Your task to perform on an android device: open app "Nova Launcher" (install if not already installed) Image 0: 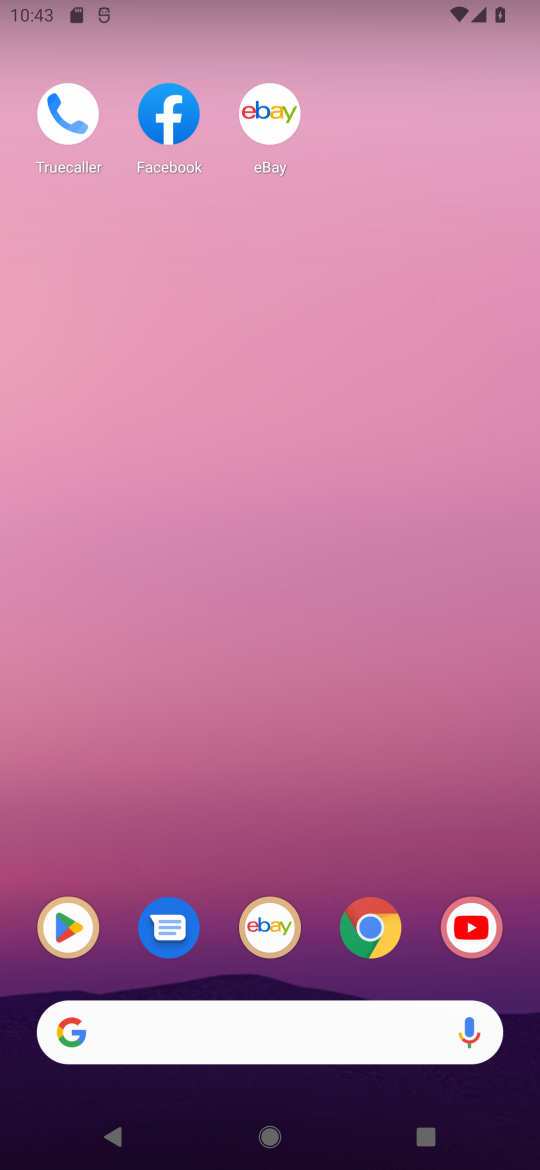
Step 0: press home button
Your task to perform on an android device: open app "Nova Launcher" (install if not already installed) Image 1: 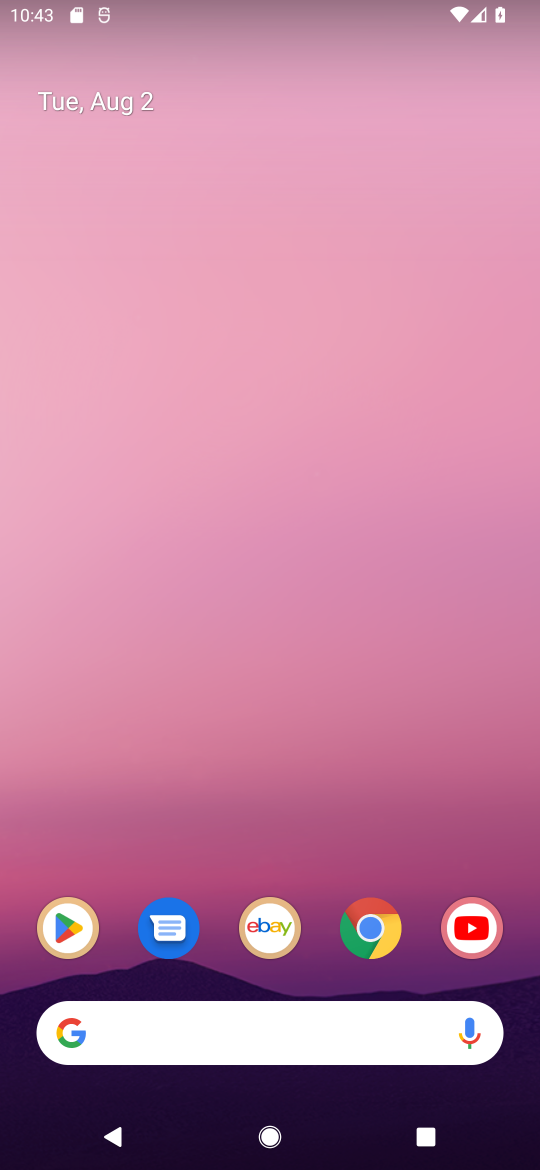
Step 1: click (52, 928)
Your task to perform on an android device: open app "Nova Launcher" (install if not already installed) Image 2: 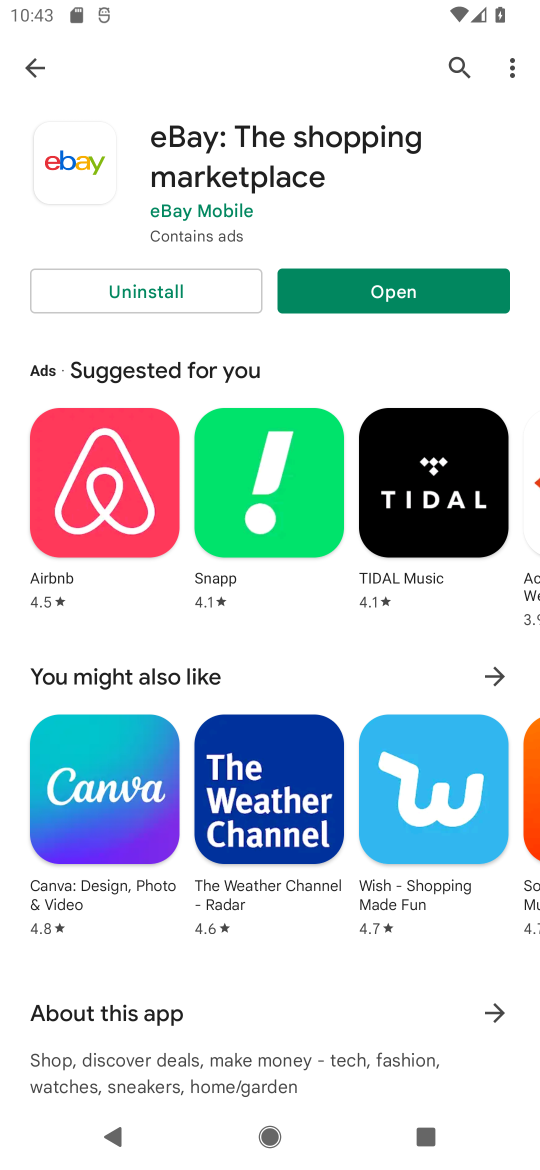
Step 2: click (456, 60)
Your task to perform on an android device: open app "Nova Launcher" (install if not already installed) Image 3: 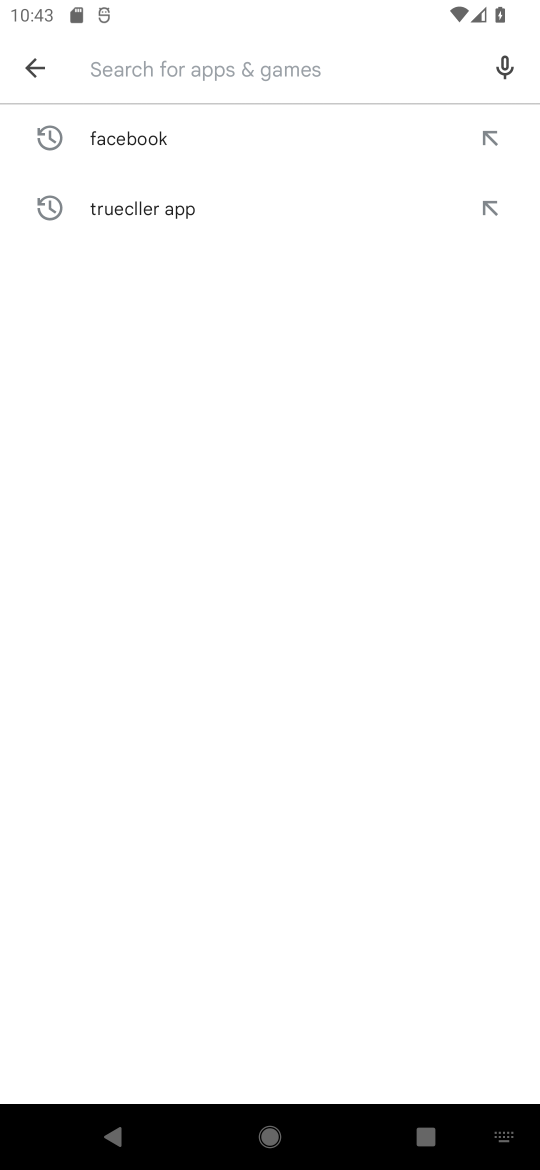
Step 3: type "nova launcher"
Your task to perform on an android device: open app "Nova Launcher" (install if not already installed) Image 4: 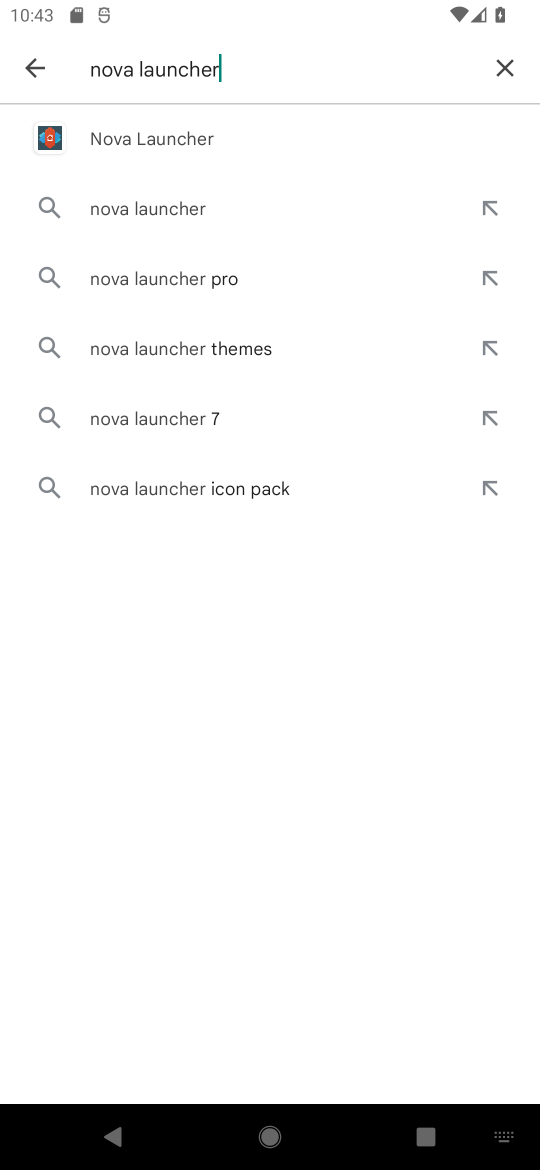
Step 4: click (233, 125)
Your task to perform on an android device: open app "Nova Launcher" (install if not already installed) Image 5: 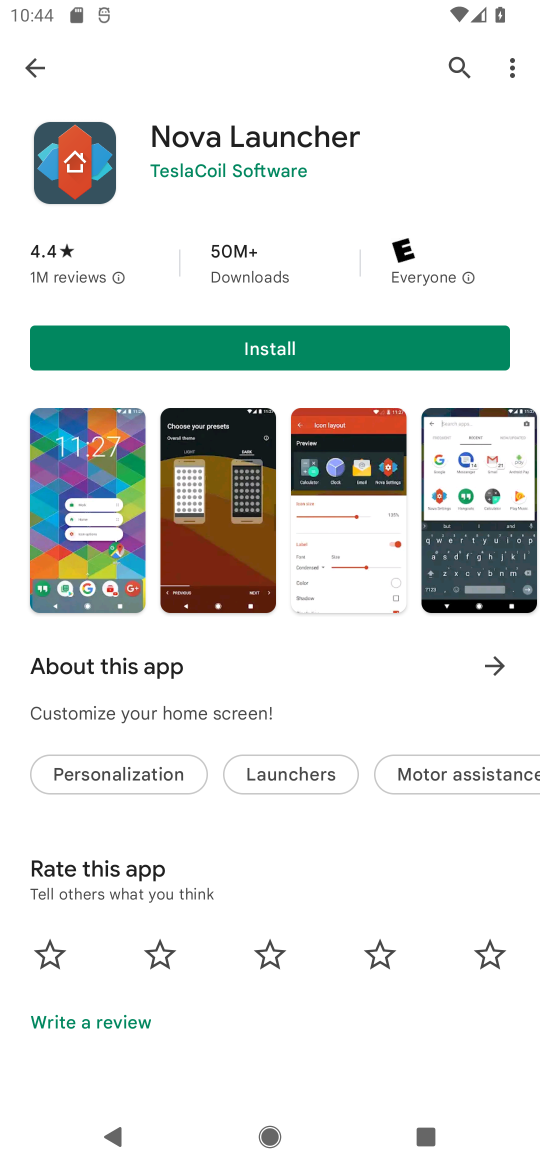
Step 5: click (308, 349)
Your task to perform on an android device: open app "Nova Launcher" (install if not already installed) Image 6: 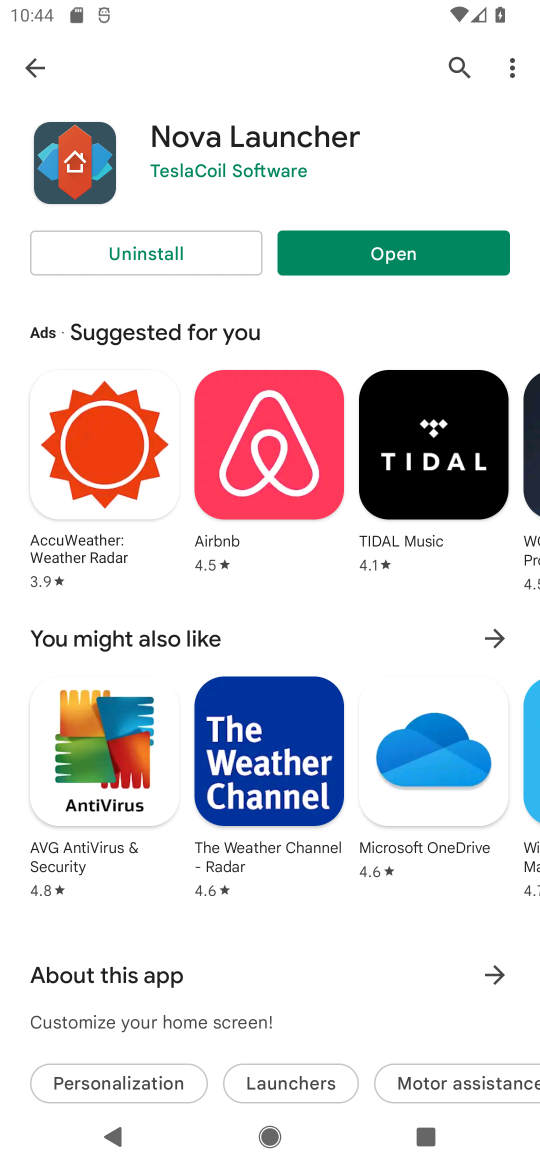
Step 6: click (430, 247)
Your task to perform on an android device: open app "Nova Launcher" (install if not already installed) Image 7: 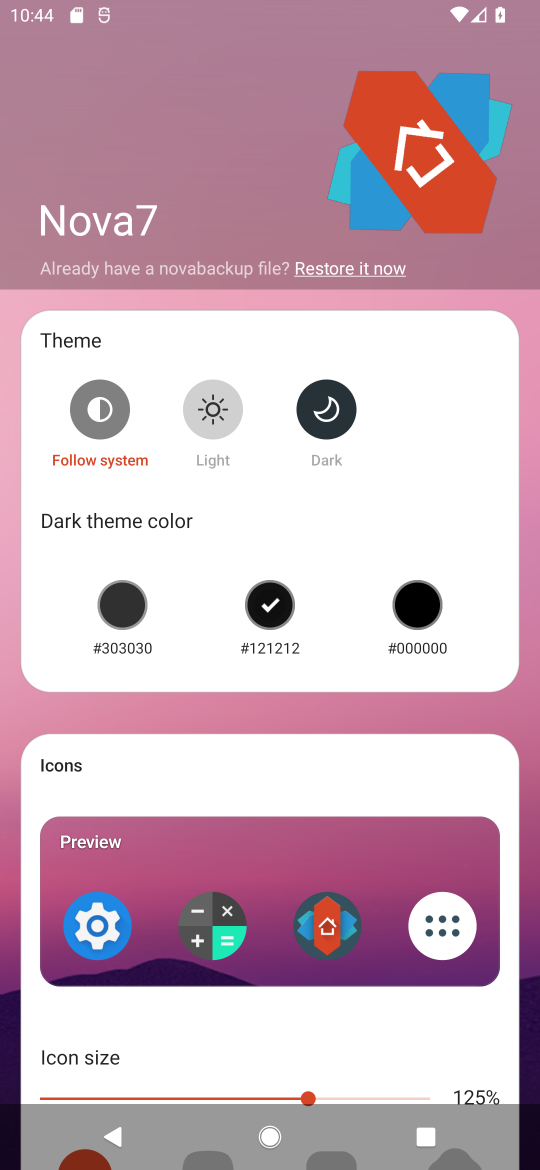
Step 7: task complete